Your task to perform on an android device: Find coffee shops on Maps Image 0: 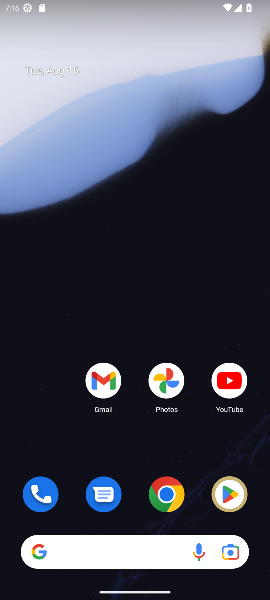
Step 0: drag from (46, 450) to (54, 307)
Your task to perform on an android device: Find coffee shops on Maps Image 1: 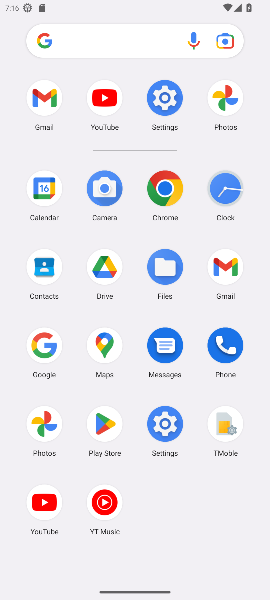
Step 1: click (98, 335)
Your task to perform on an android device: Find coffee shops on Maps Image 2: 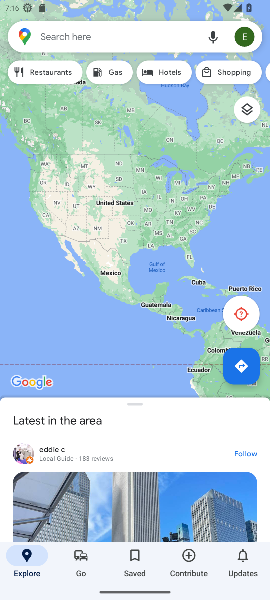
Step 2: task complete